Your task to perform on an android device: change notification settings in the gmail app Image 0: 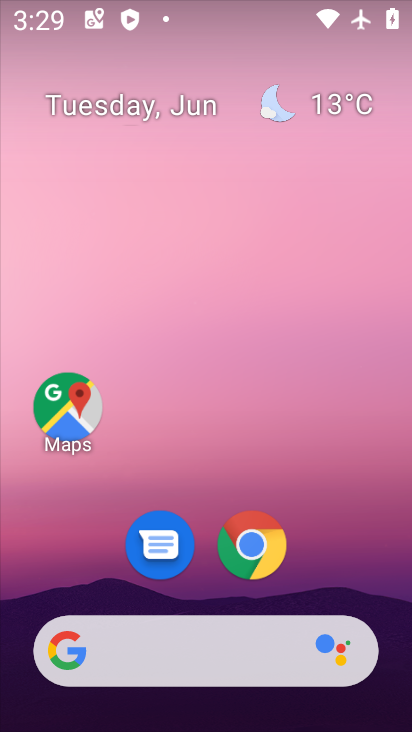
Step 0: drag from (239, 661) to (180, 96)
Your task to perform on an android device: change notification settings in the gmail app Image 1: 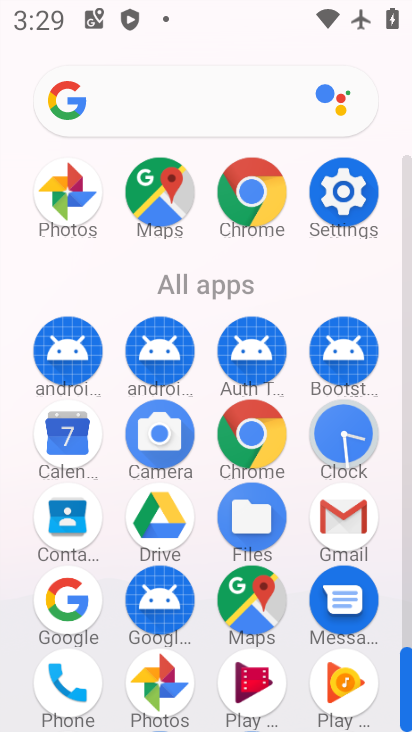
Step 1: drag from (206, 479) to (216, 220)
Your task to perform on an android device: change notification settings in the gmail app Image 2: 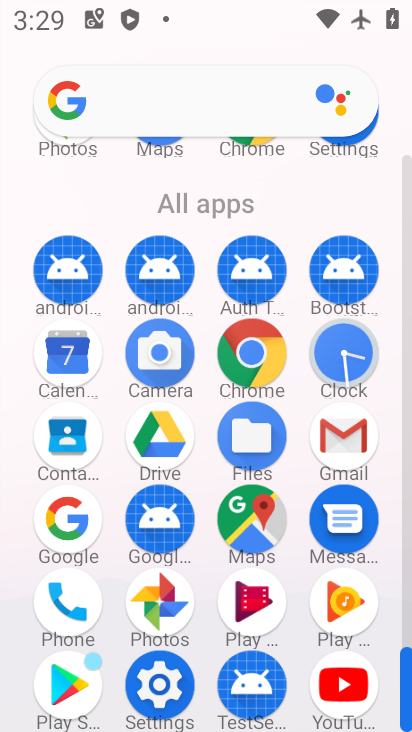
Step 2: drag from (176, 460) to (184, 263)
Your task to perform on an android device: change notification settings in the gmail app Image 3: 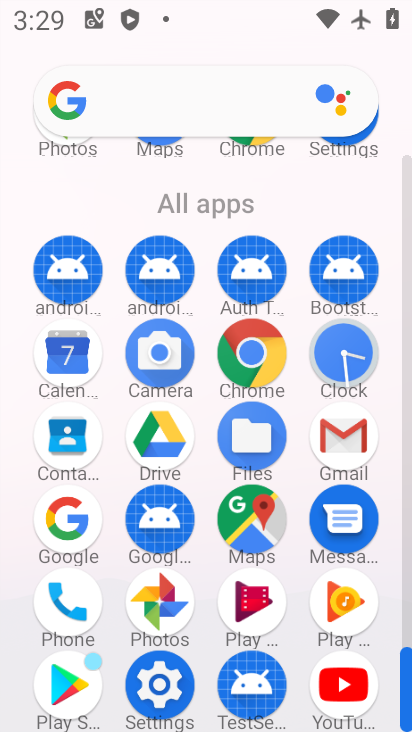
Step 3: drag from (198, 429) to (210, 269)
Your task to perform on an android device: change notification settings in the gmail app Image 4: 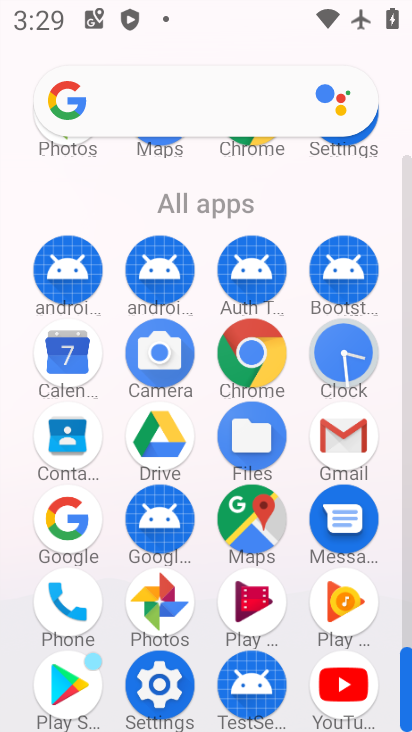
Step 4: click (328, 444)
Your task to perform on an android device: change notification settings in the gmail app Image 5: 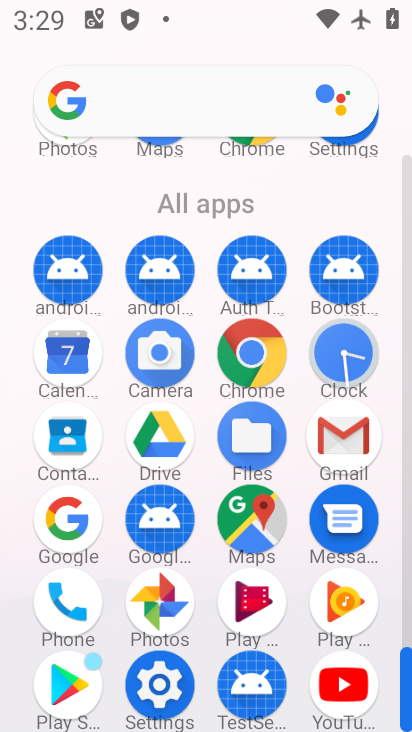
Step 5: click (329, 451)
Your task to perform on an android device: change notification settings in the gmail app Image 6: 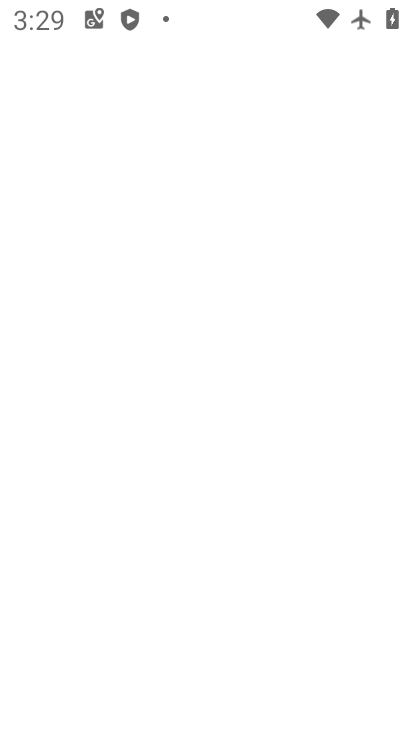
Step 6: click (329, 457)
Your task to perform on an android device: change notification settings in the gmail app Image 7: 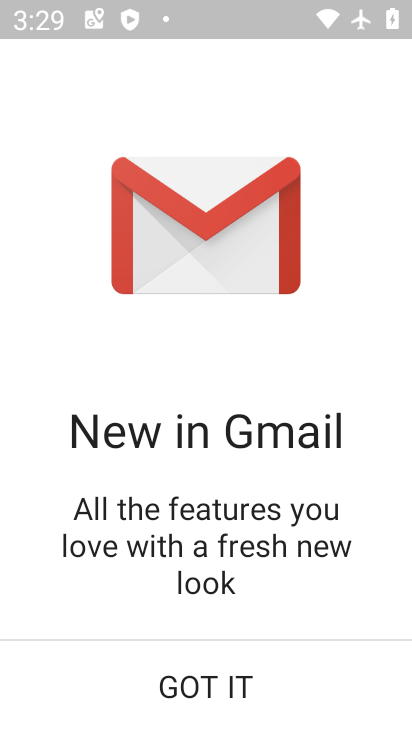
Step 7: click (236, 677)
Your task to perform on an android device: change notification settings in the gmail app Image 8: 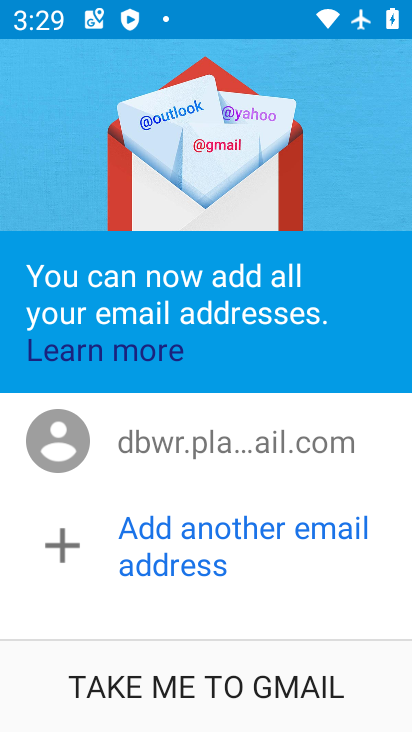
Step 8: click (251, 686)
Your task to perform on an android device: change notification settings in the gmail app Image 9: 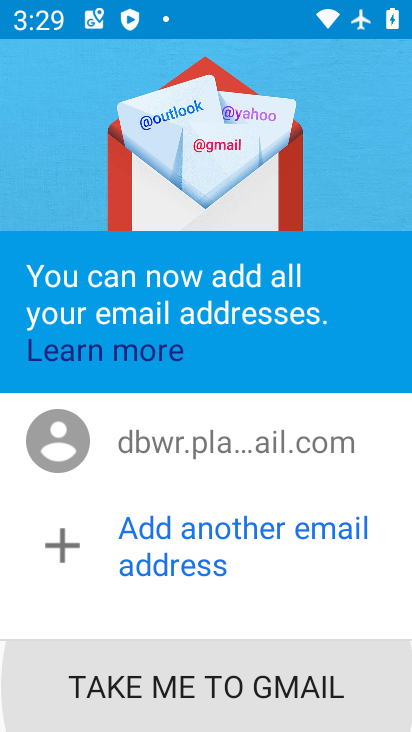
Step 9: click (253, 690)
Your task to perform on an android device: change notification settings in the gmail app Image 10: 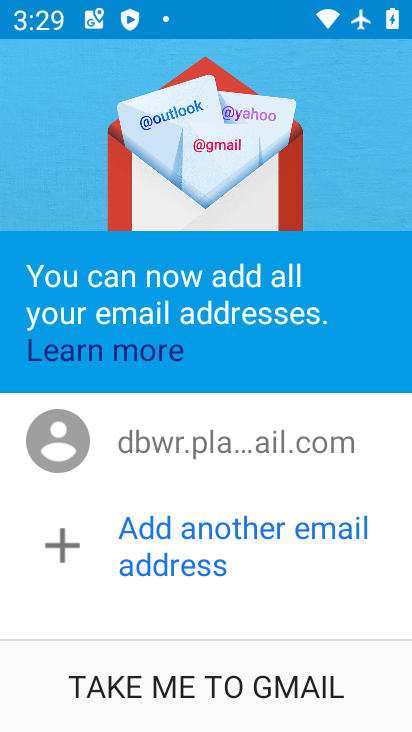
Step 10: click (255, 689)
Your task to perform on an android device: change notification settings in the gmail app Image 11: 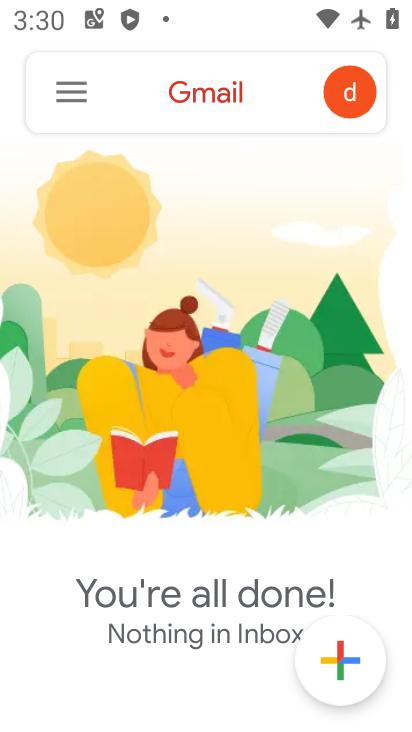
Step 11: drag from (71, 92) to (114, 399)
Your task to perform on an android device: change notification settings in the gmail app Image 12: 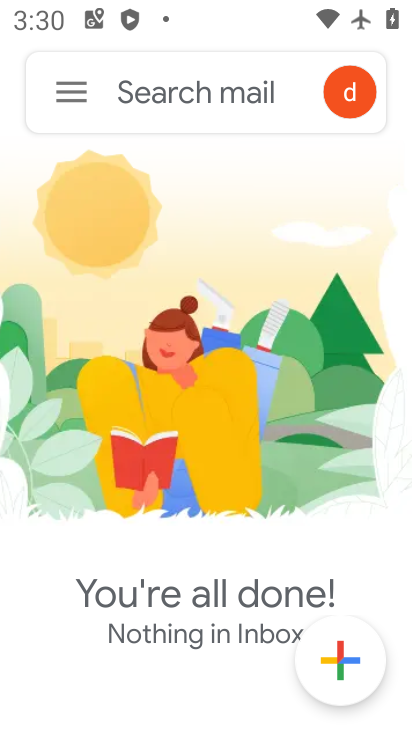
Step 12: click (67, 103)
Your task to perform on an android device: change notification settings in the gmail app Image 13: 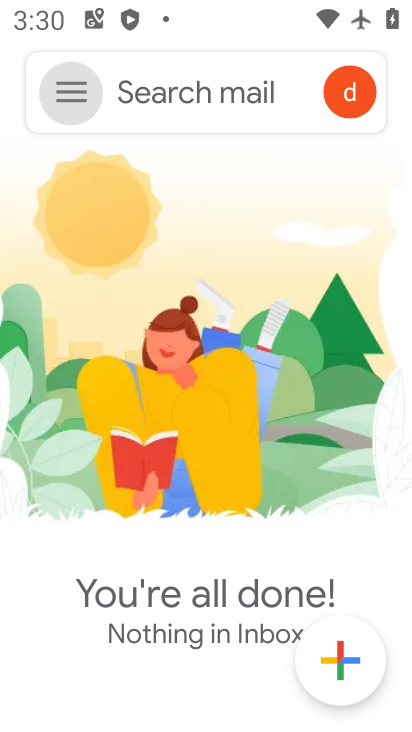
Step 13: click (67, 103)
Your task to perform on an android device: change notification settings in the gmail app Image 14: 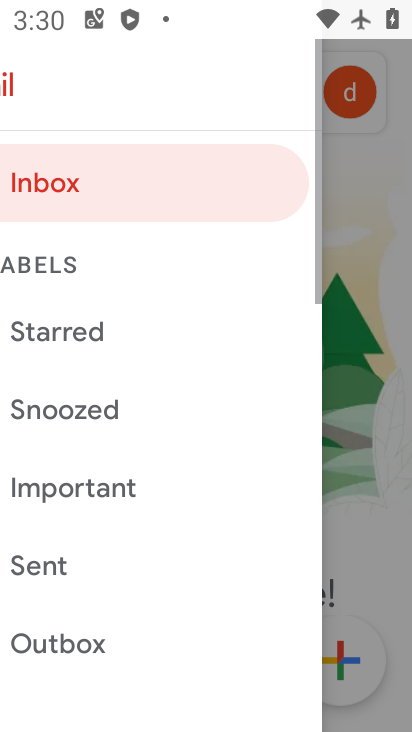
Step 14: click (70, 104)
Your task to perform on an android device: change notification settings in the gmail app Image 15: 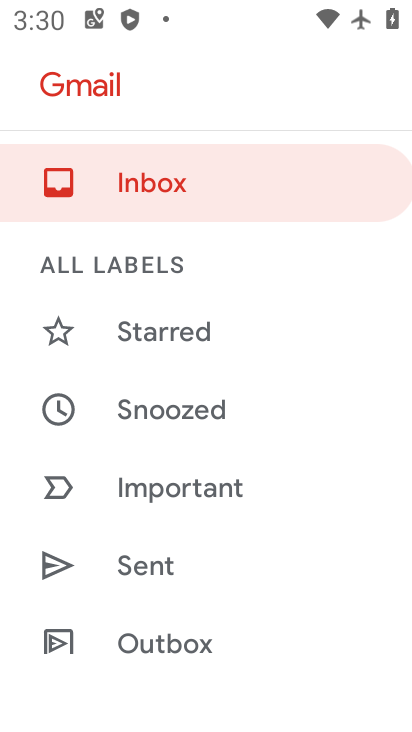
Step 15: click (64, 105)
Your task to perform on an android device: change notification settings in the gmail app Image 16: 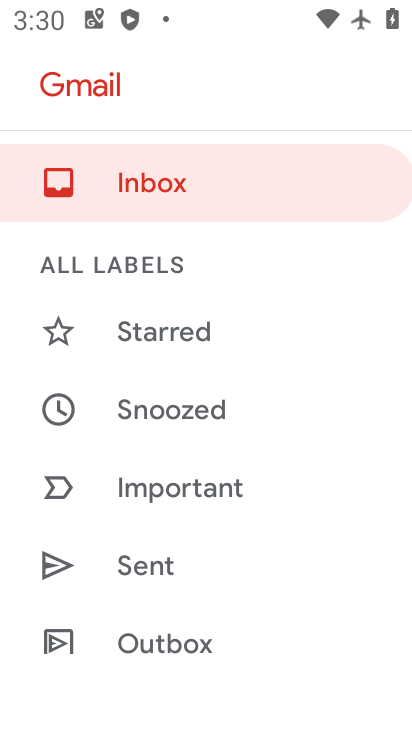
Step 16: drag from (194, 503) to (155, 43)
Your task to perform on an android device: change notification settings in the gmail app Image 17: 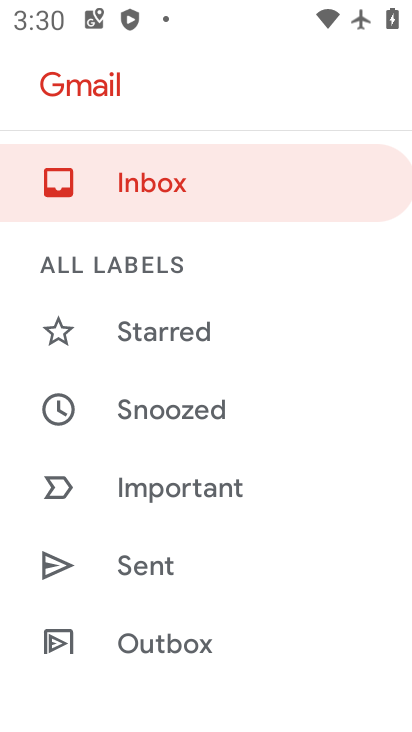
Step 17: drag from (212, 532) to (186, 206)
Your task to perform on an android device: change notification settings in the gmail app Image 18: 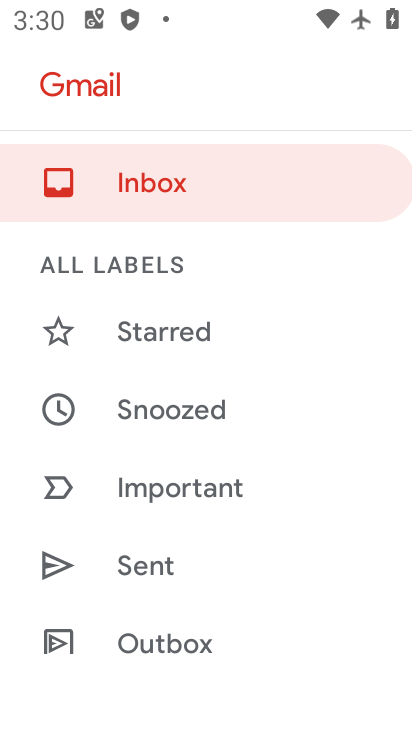
Step 18: drag from (227, 555) to (190, 270)
Your task to perform on an android device: change notification settings in the gmail app Image 19: 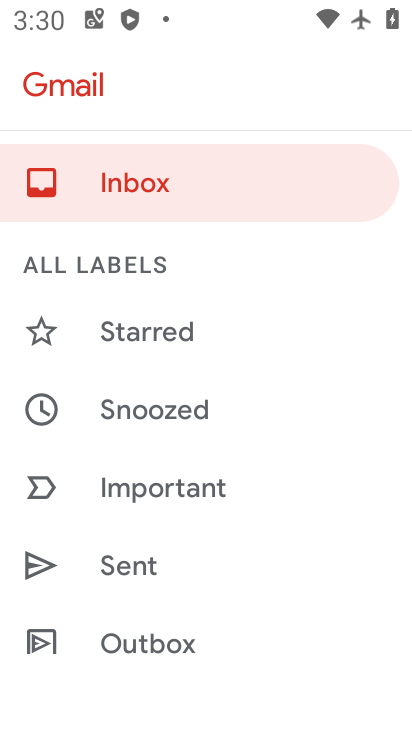
Step 19: drag from (151, 592) to (105, 344)
Your task to perform on an android device: change notification settings in the gmail app Image 20: 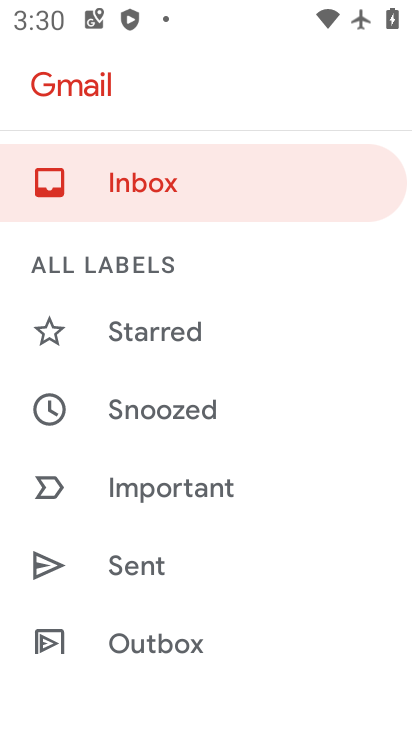
Step 20: drag from (110, 660) to (155, 342)
Your task to perform on an android device: change notification settings in the gmail app Image 21: 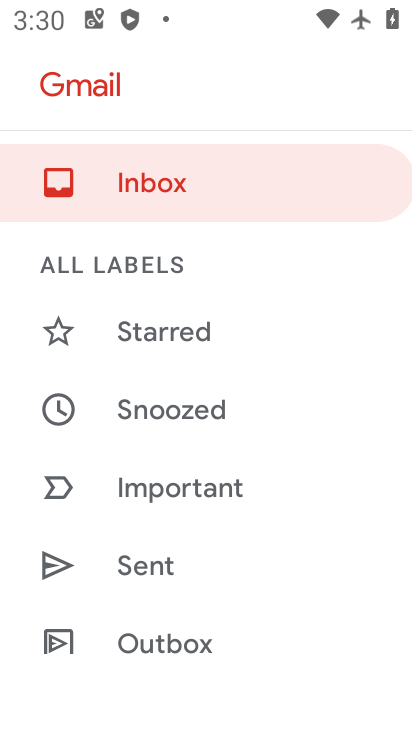
Step 21: drag from (200, 603) to (134, 285)
Your task to perform on an android device: change notification settings in the gmail app Image 22: 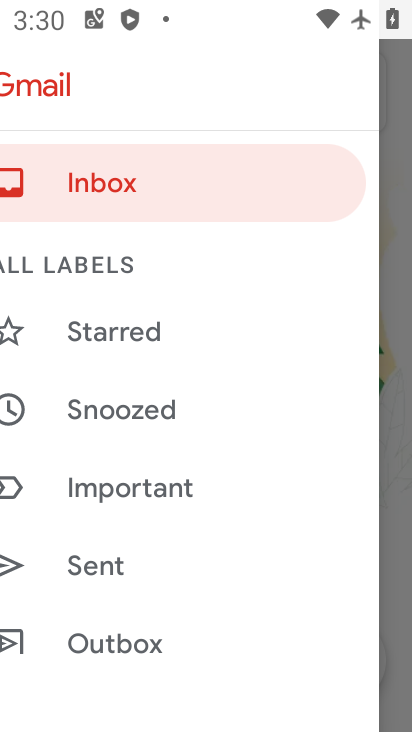
Step 22: drag from (110, 554) to (98, 341)
Your task to perform on an android device: change notification settings in the gmail app Image 23: 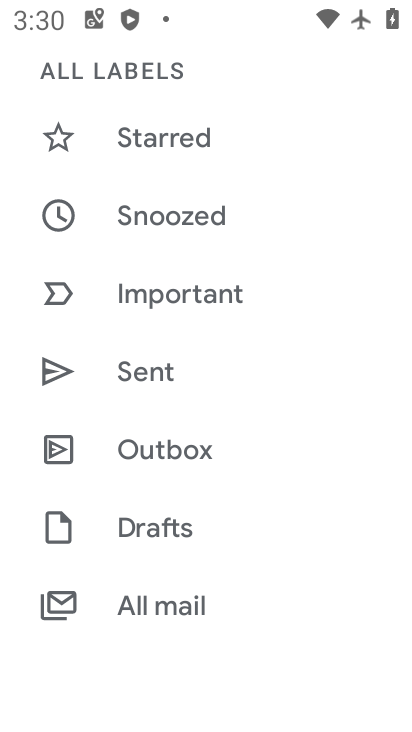
Step 23: drag from (160, 574) to (137, 358)
Your task to perform on an android device: change notification settings in the gmail app Image 24: 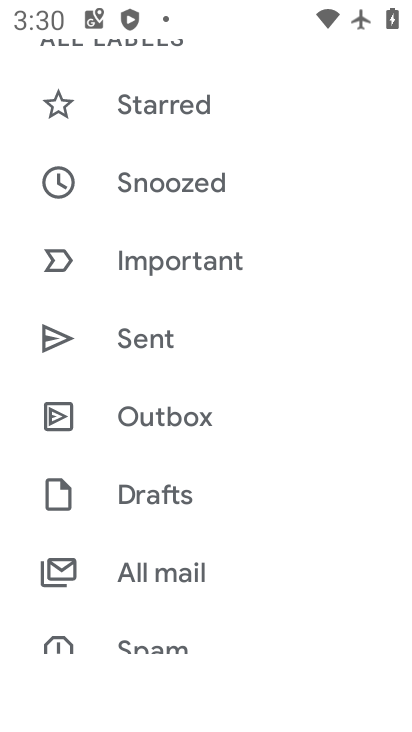
Step 24: drag from (196, 593) to (139, 279)
Your task to perform on an android device: change notification settings in the gmail app Image 25: 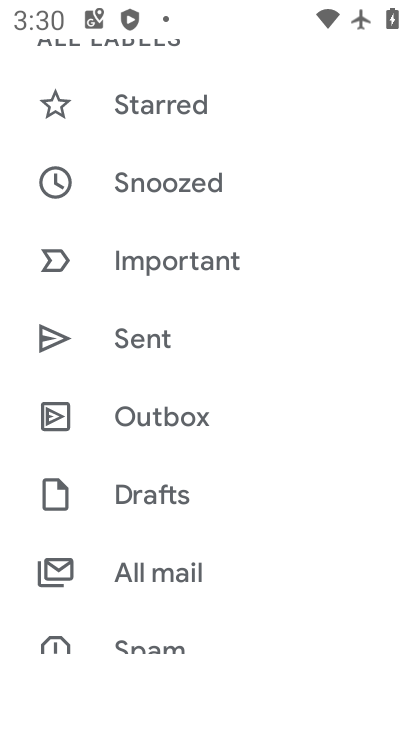
Step 25: drag from (156, 530) to (149, 266)
Your task to perform on an android device: change notification settings in the gmail app Image 26: 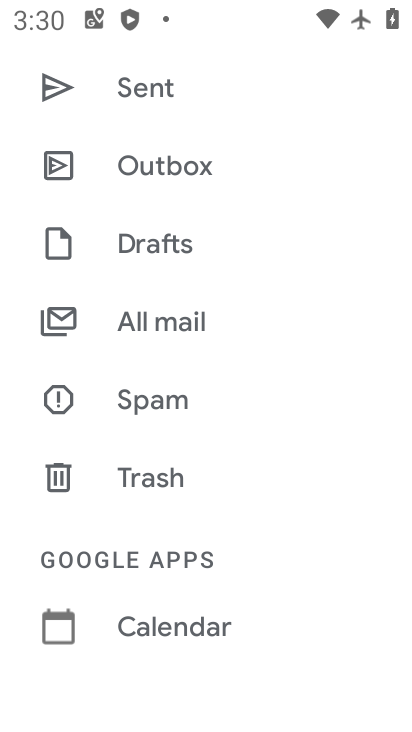
Step 26: drag from (163, 542) to (117, 175)
Your task to perform on an android device: change notification settings in the gmail app Image 27: 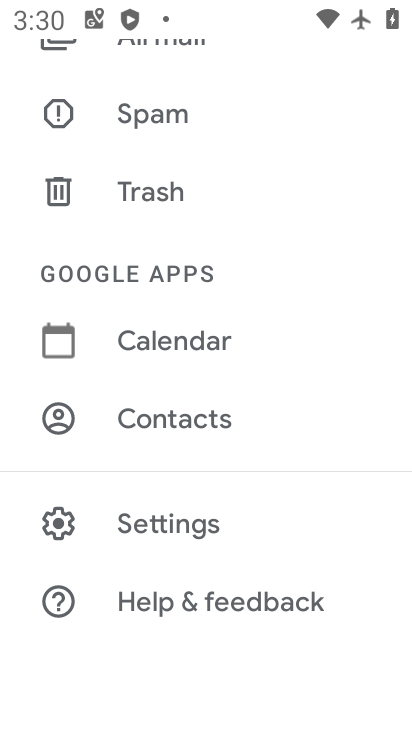
Step 27: drag from (206, 540) to (158, 225)
Your task to perform on an android device: change notification settings in the gmail app Image 28: 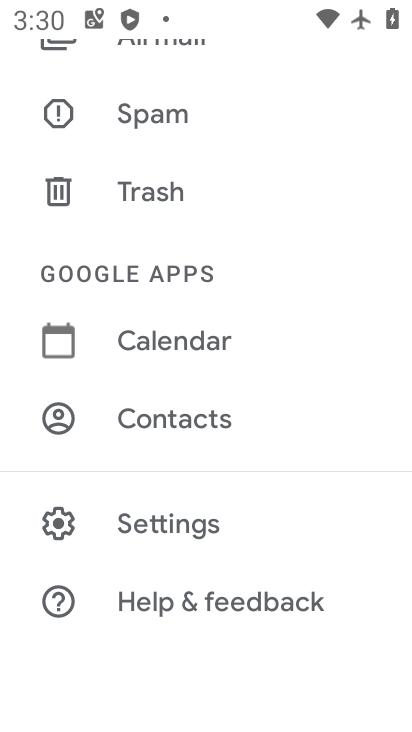
Step 28: drag from (150, 383) to (169, 266)
Your task to perform on an android device: change notification settings in the gmail app Image 29: 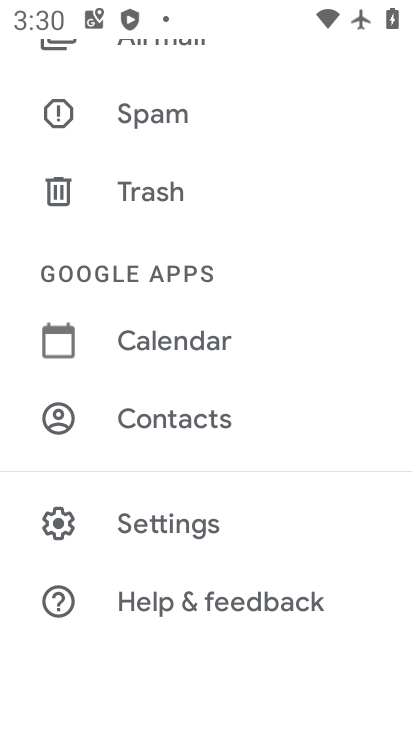
Step 29: click (161, 533)
Your task to perform on an android device: change notification settings in the gmail app Image 30: 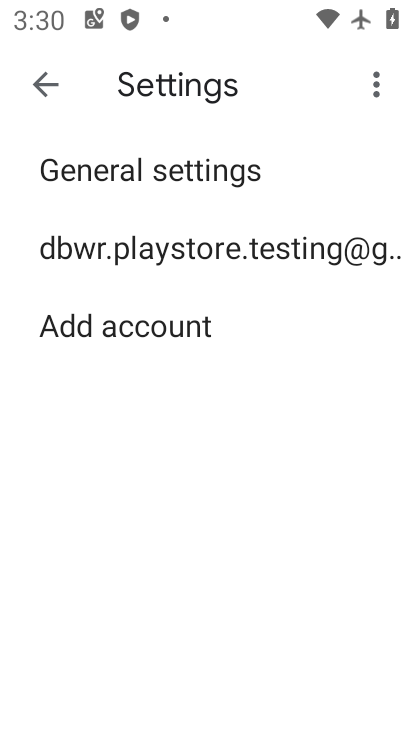
Step 30: click (153, 251)
Your task to perform on an android device: change notification settings in the gmail app Image 31: 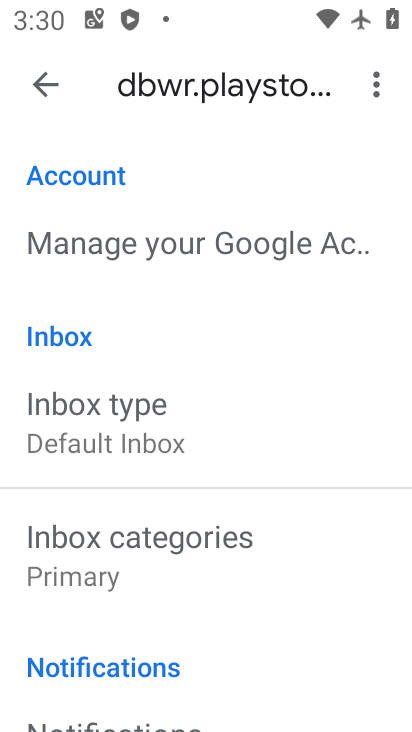
Step 31: drag from (89, 574) to (9, 264)
Your task to perform on an android device: change notification settings in the gmail app Image 32: 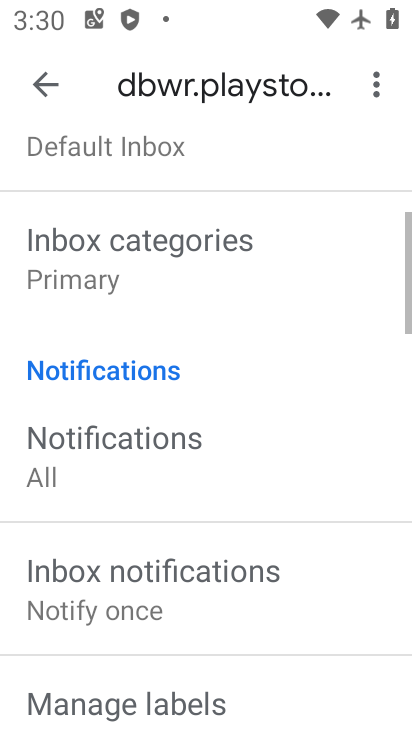
Step 32: drag from (90, 619) to (132, 337)
Your task to perform on an android device: change notification settings in the gmail app Image 33: 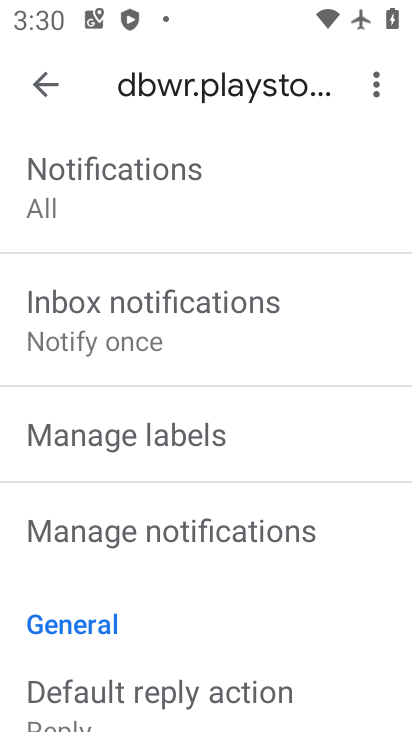
Step 33: click (55, 196)
Your task to perform on an android device: change notification settings in the gmail app Image 34: 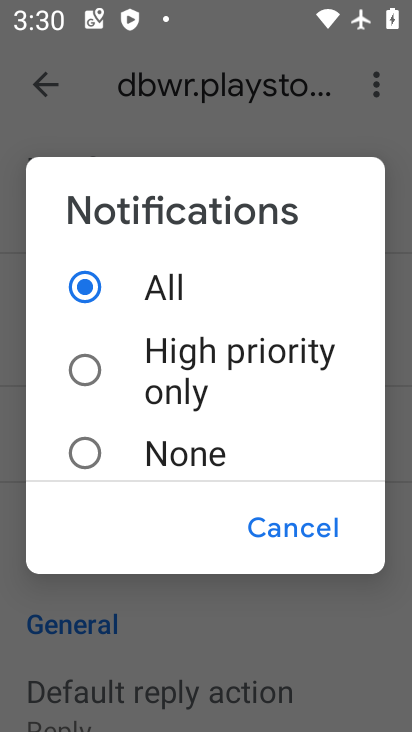
Step 34: click (74, 373)
Your task to perform on an android device: change notification settings in the gmail app Image 35: 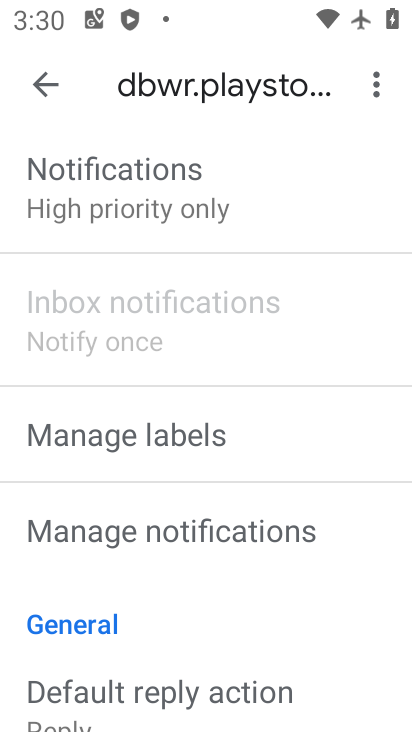
Step 35: task complete